Your task to perform on an android device: Open Google Chrome and open the bookmarks view Image 0: 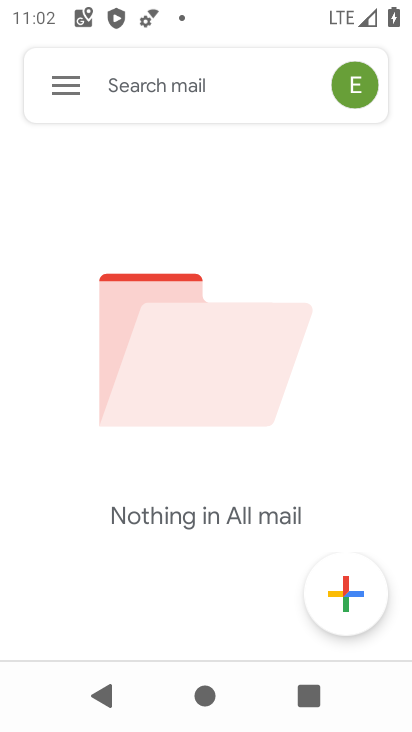
Step 0: press home button
Your task to perform on an android device: Open Google Chrome and open the bookmarks view Image 1: 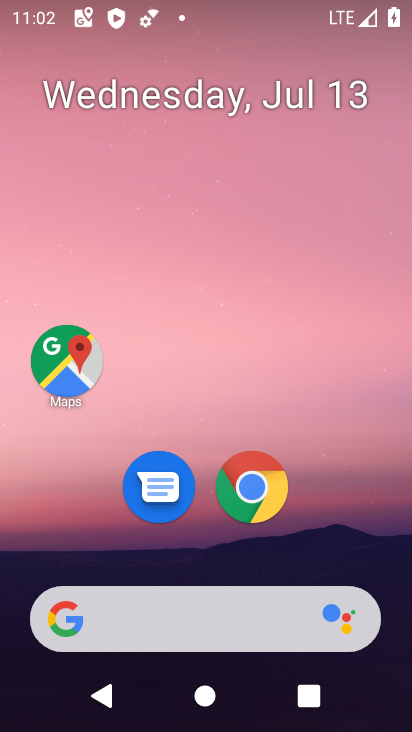
Step 1: click (255, 503)
Your task to perform on an android device: Open Google Chrome and open the bookmarks view Image 2: 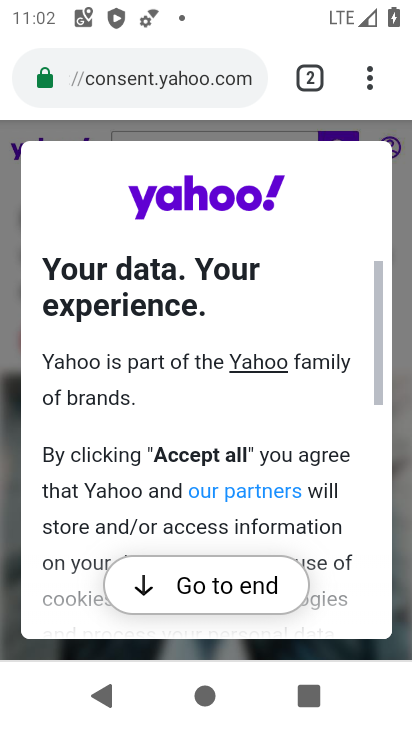
Step 2: task complete